Your task to perform on an android device: Show the shopping cart on target. Search for "usb-c to usb-a" on target, select the first entry, add it to the cart, then select checkout. Image 0: 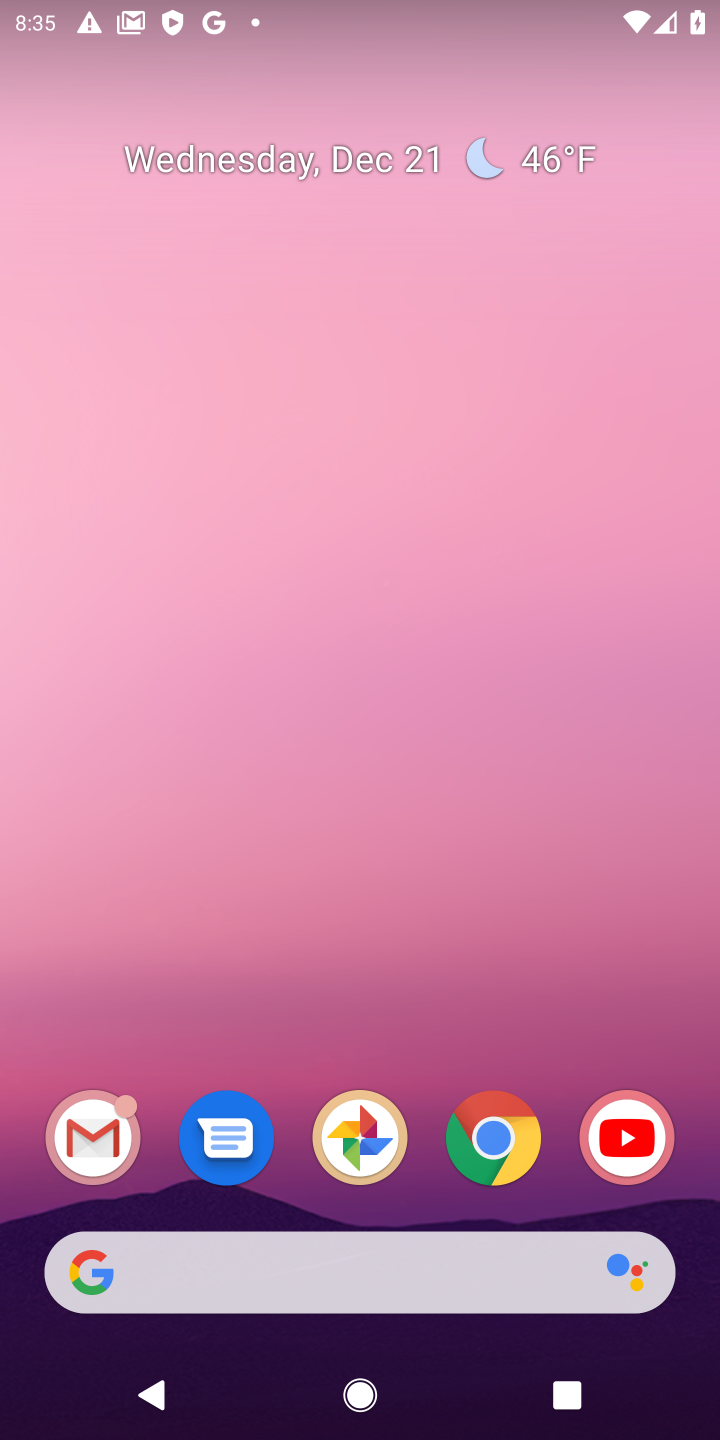
Step 0: click (509, 1146)
Your task to perform on an android device: Show the shopping cart on target. Search for "usb-c to usb-a" on target, select the first entry, add it to the cart, then select checkout. Image 1: 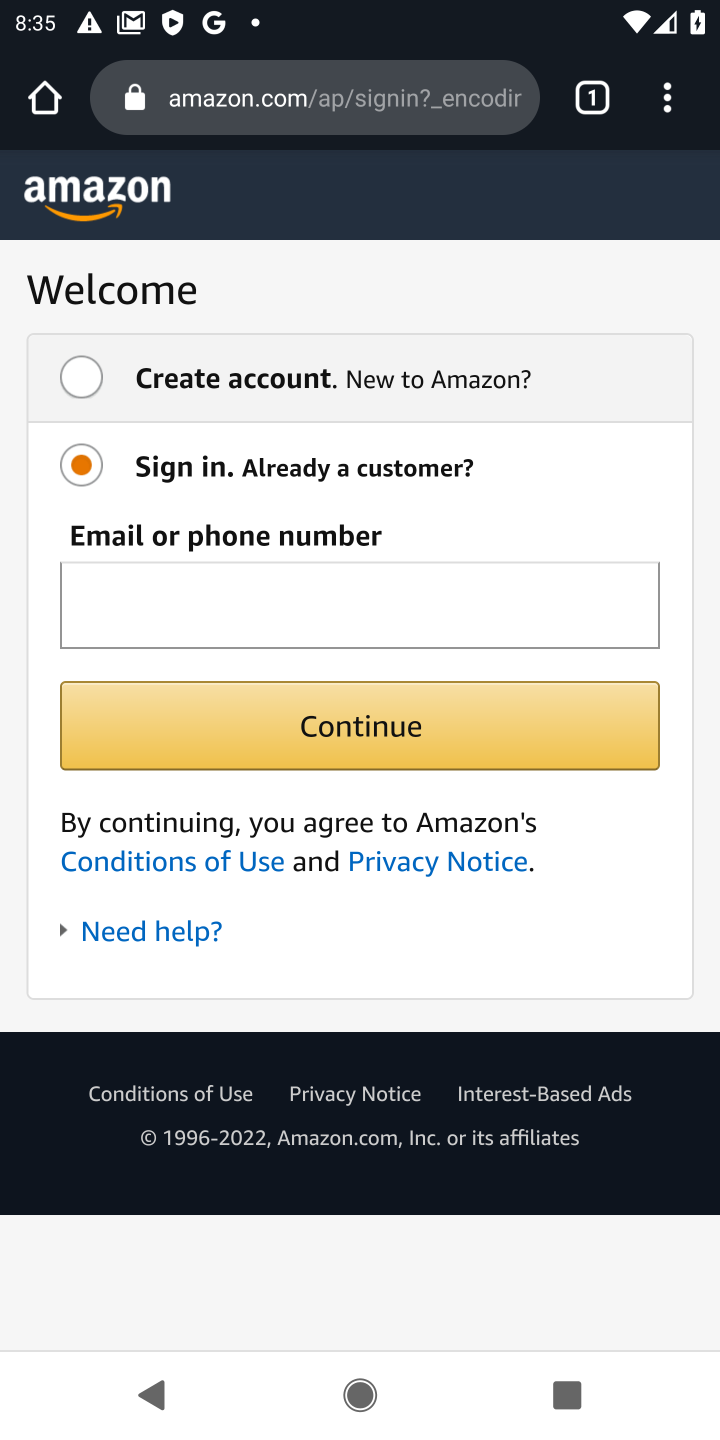
Step 1: click (264, 101)
Your task to perform on an android device: Show the shopping cart on target. Search for "usb-c to usb-a" on target, select the first entry, add it to the cart, then select checkout. Image 2: 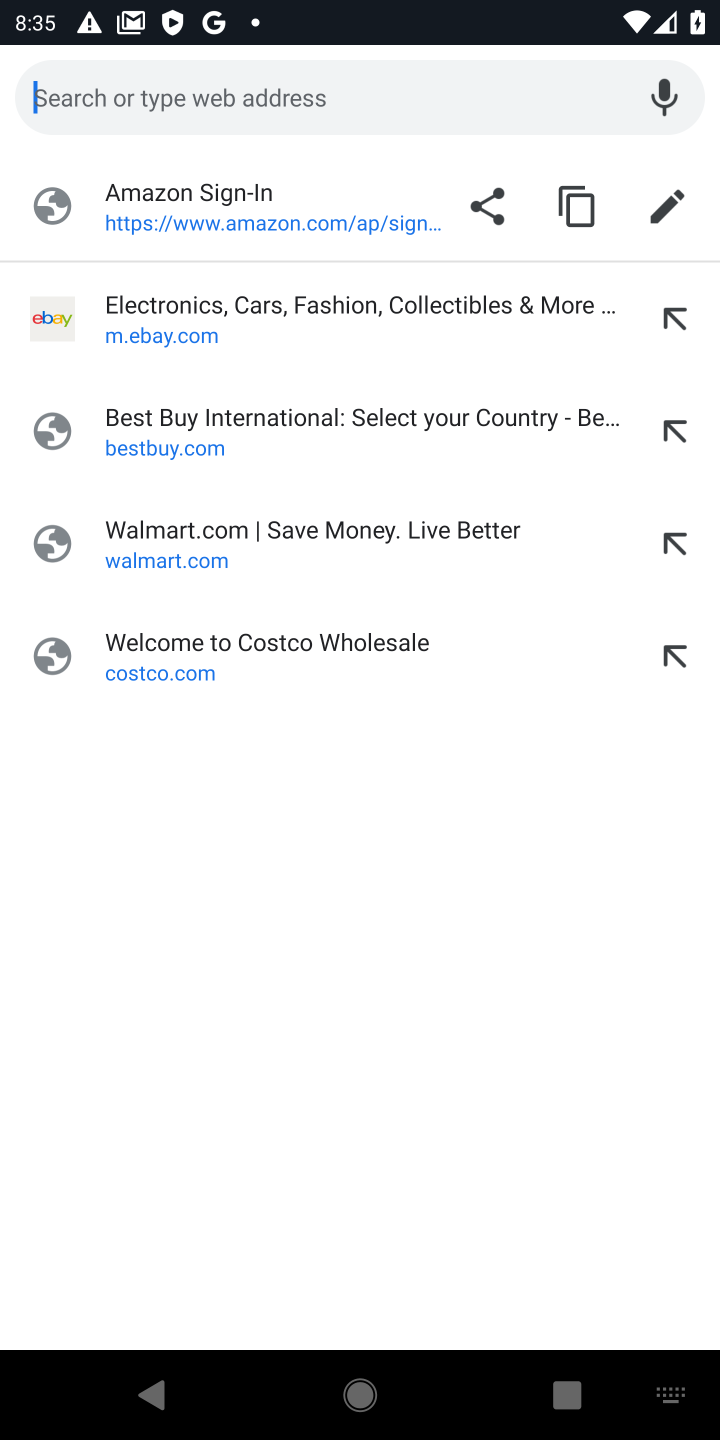
Step 2: type "target.com"
Your task to perform on an android device: Show the shopping cart on target. Search for "usb-c to usb-a" on target, select the first entry, add it to the cart, then select checkout. Image 3: 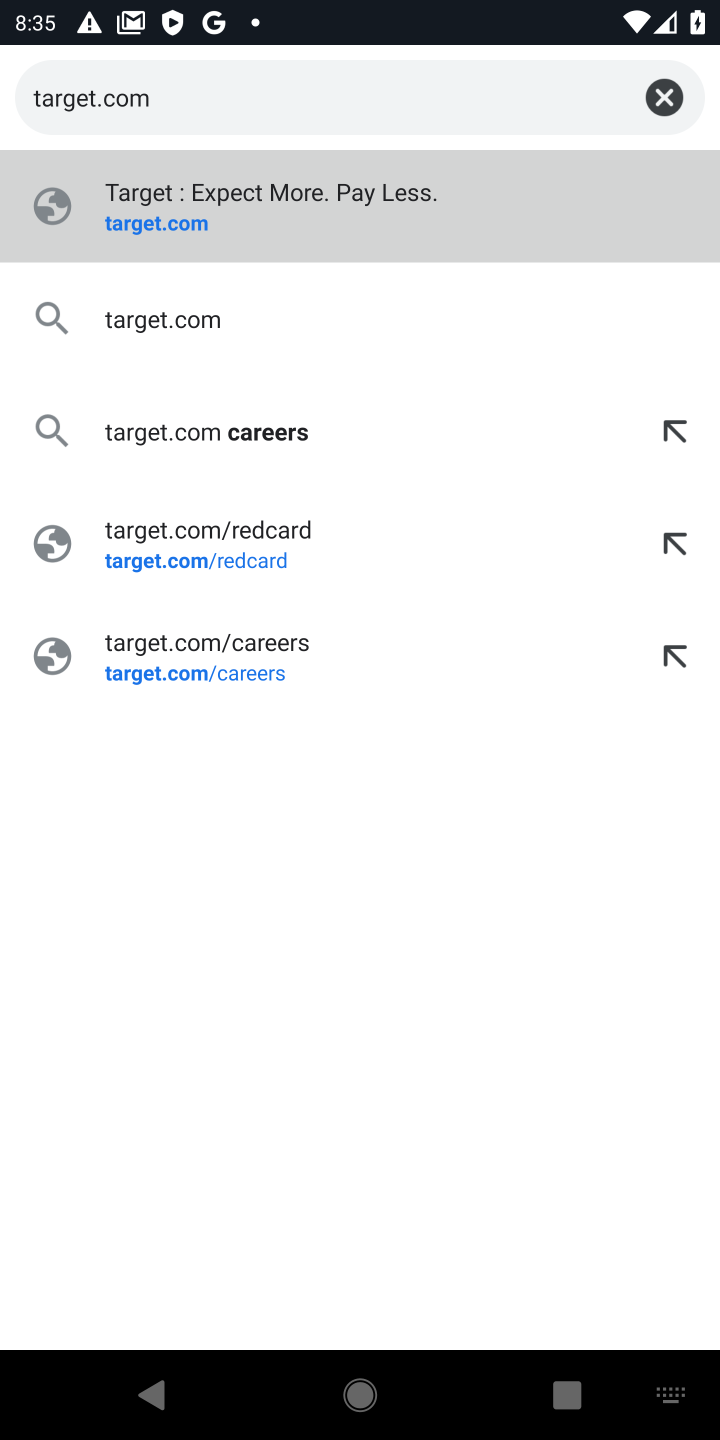
Step 3: click (197, 215)
Your task to perform on an android device: Show the shopping cart on target. Search for "usb-c to usb-a" on target, select the first entry, add it to the cart, then select checkout. Image 4: 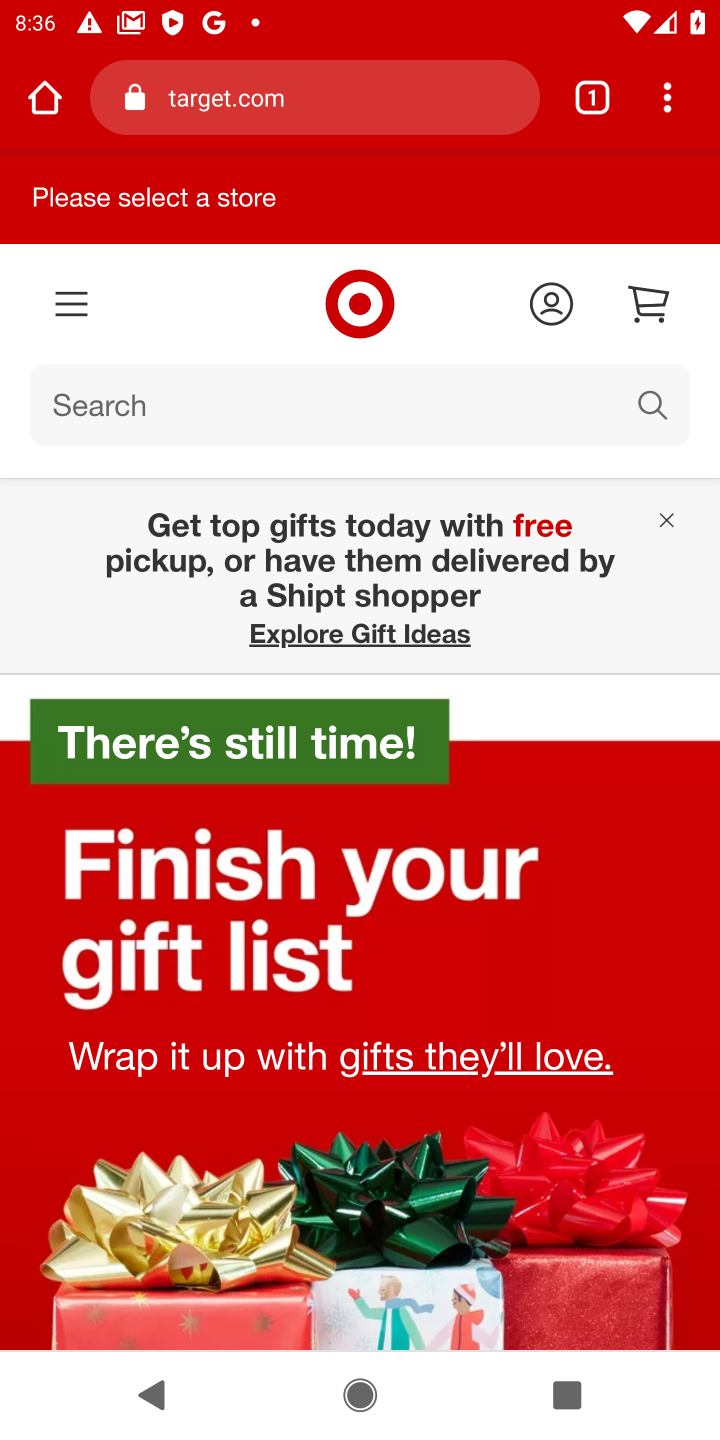
Step 4: click (647, 310)
Your task to perform on an android device: Show the shopping cart on target. Search for "usb-c to usb-a" on target, select the first entry, add it to the cart, then select checkout. Image 5: 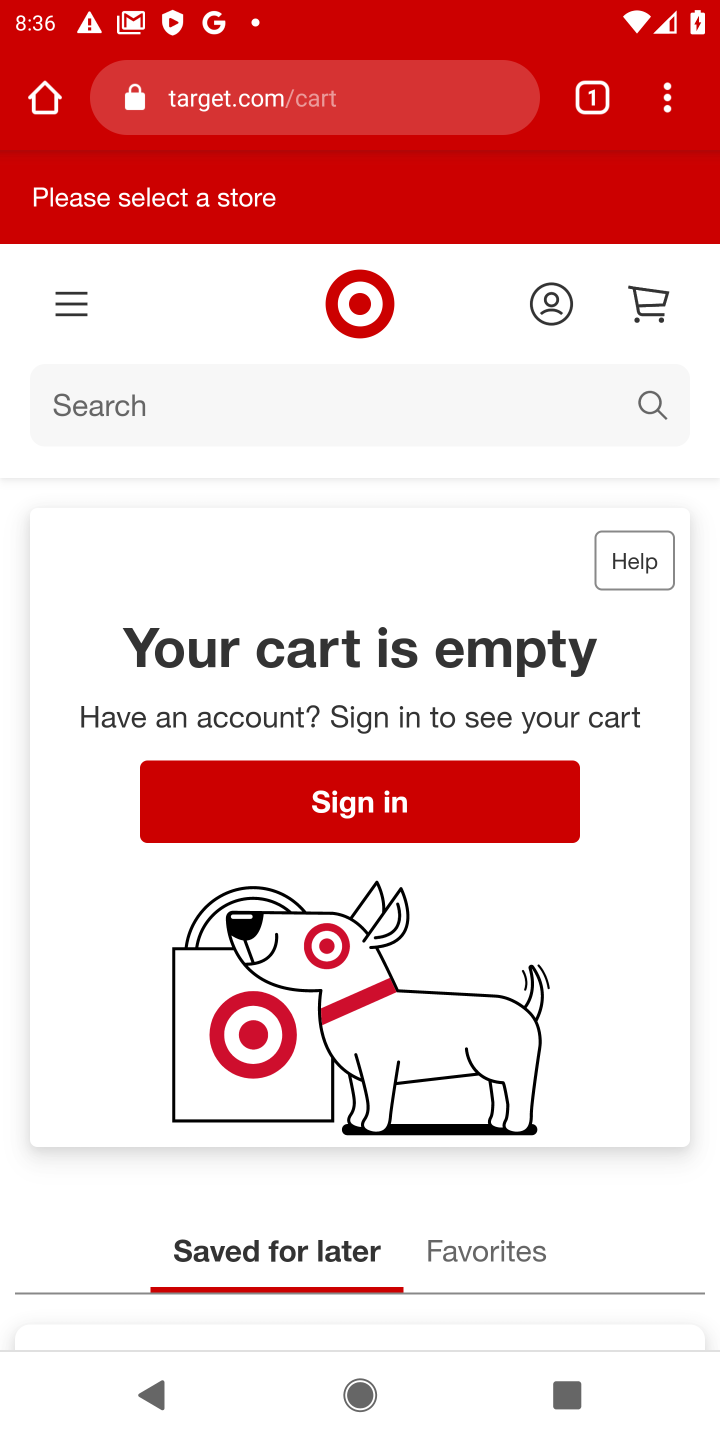
Step 5: click (73, 404)
Your task to perform on an android device: Show the shopping cart on target. Search for "usb-c to usb-a" on target, select the first entry, add it to the cart, then select checkout. Image 6: 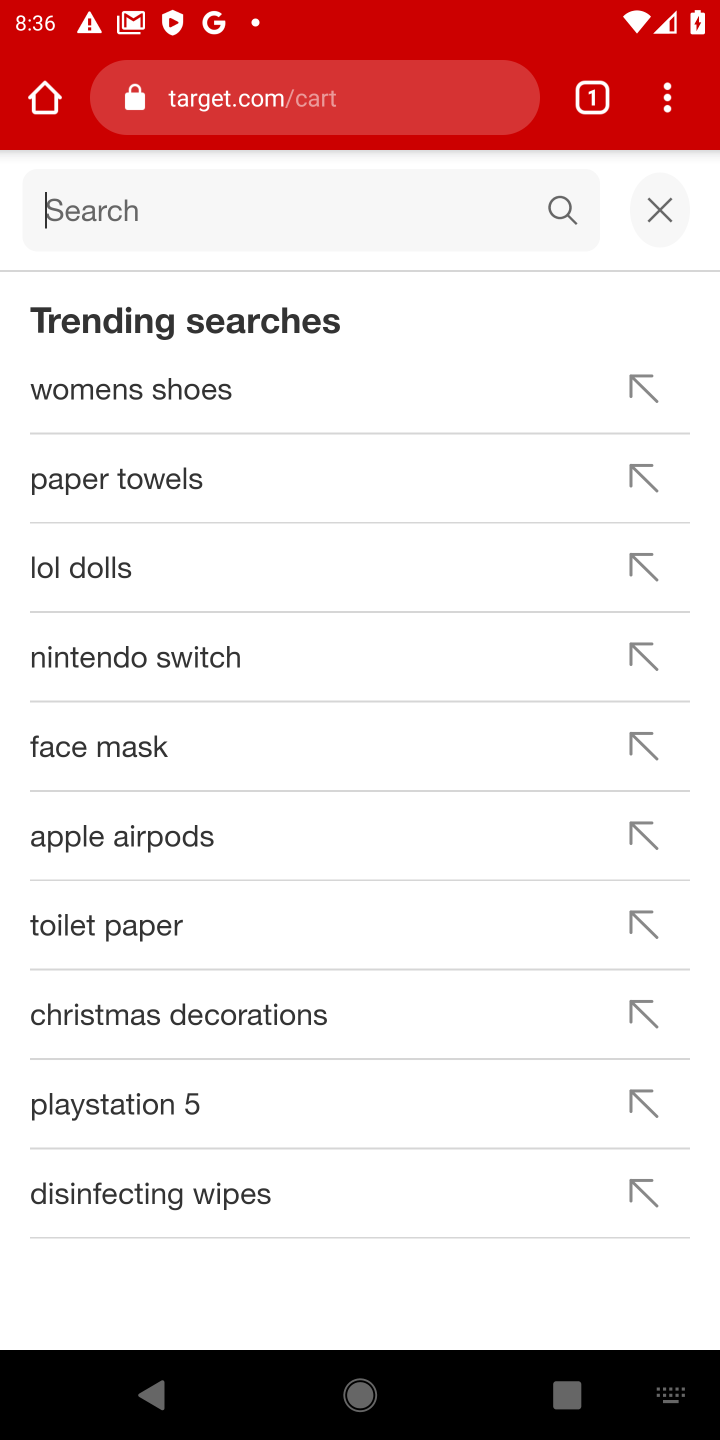
Step 6: type "usb-c to usb-a"
Your task to perform on an android device: Show the shopping cart on target. Search for "usb-c to usb-a" on target, select the first entry, add it to the cart, then select checkout. Image 7: 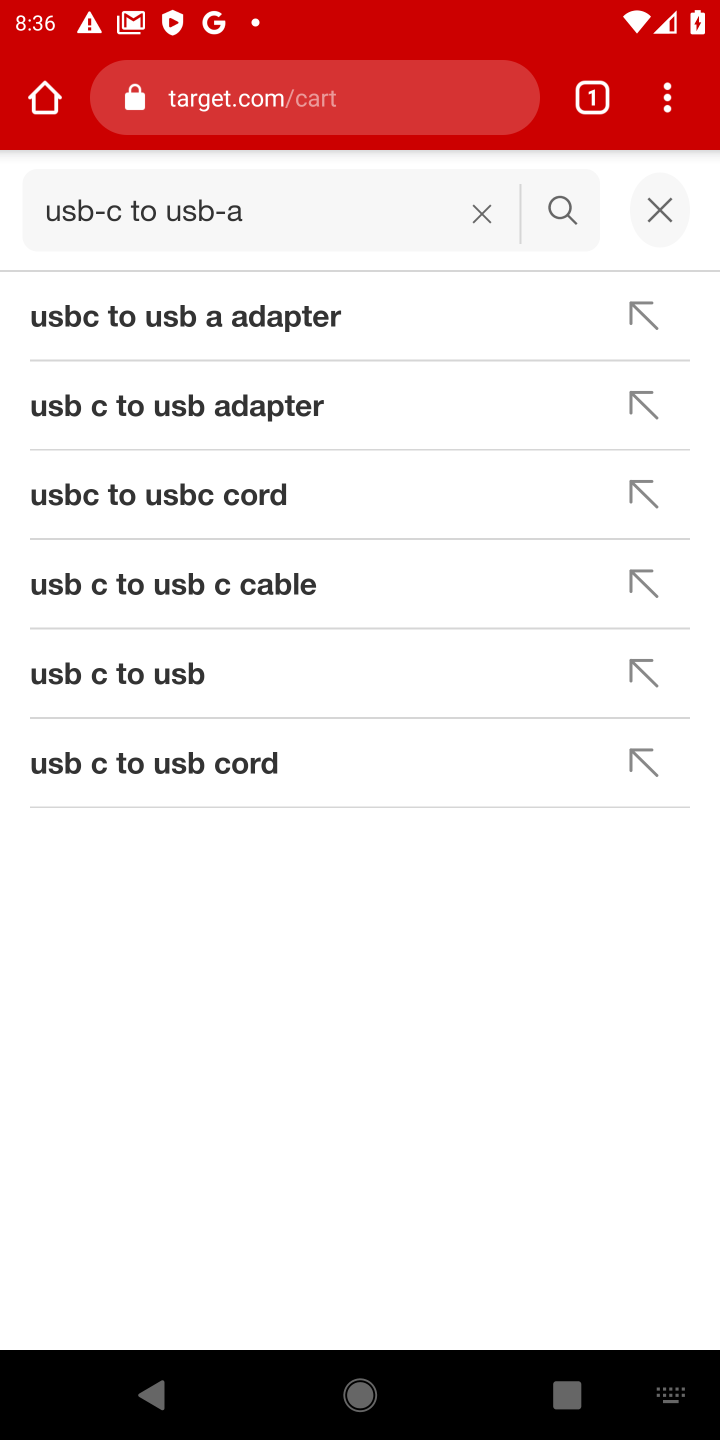
Step 7: click (571, 217)
Your task to perform on an android device: Show the shopping cart on target. Search for "usb-c to usb-a" on target, select the first entry, add it to the cart, then select checkout. Image 8: 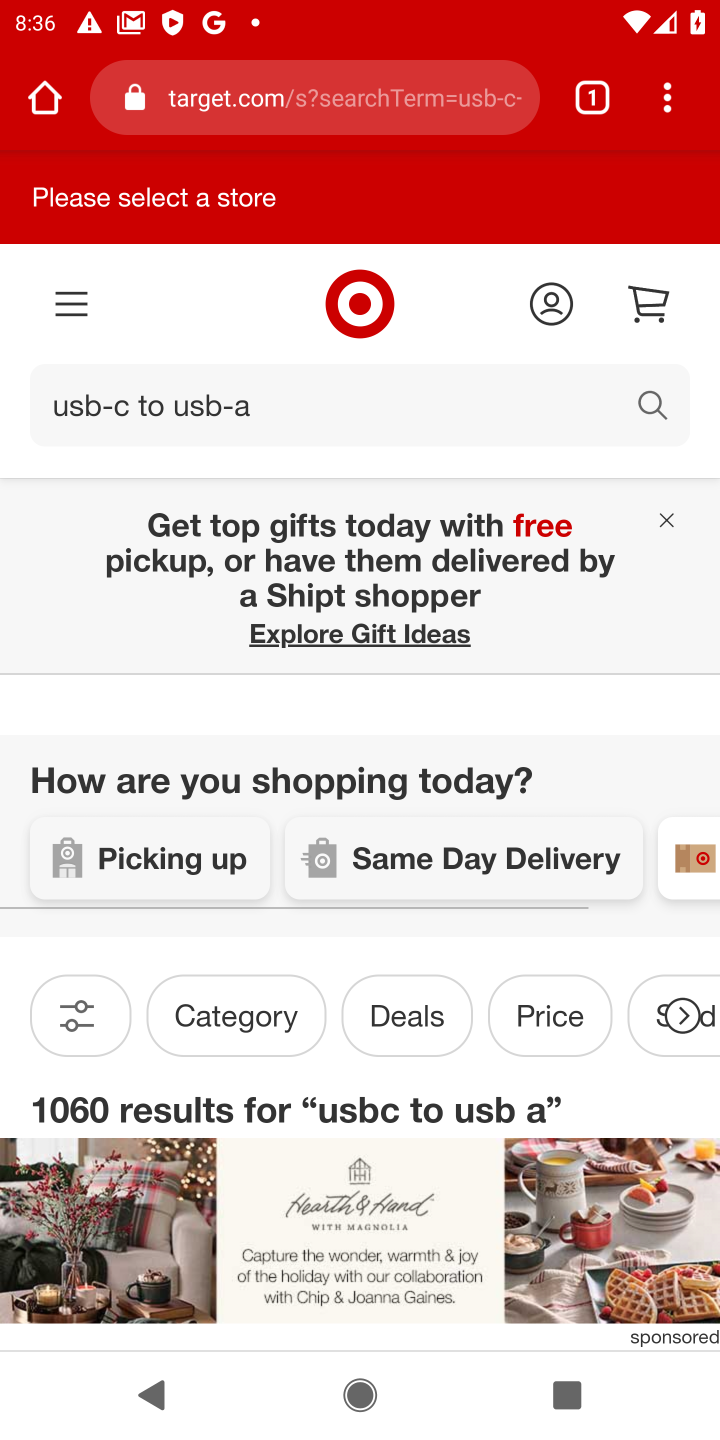
Step 8: task complete